Your task to perform on an android device: open chrome and create a bookmark for the current page Image 0: 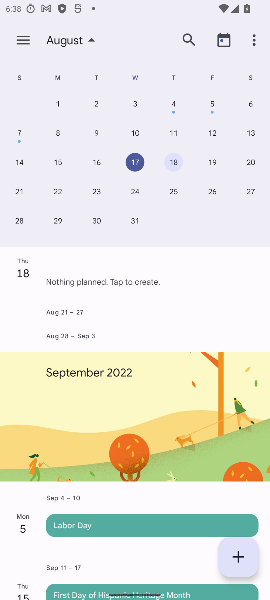
Step 0: press home button
Your task to perform on an android device: open chrome and create a bookmark for the current page Image 1: 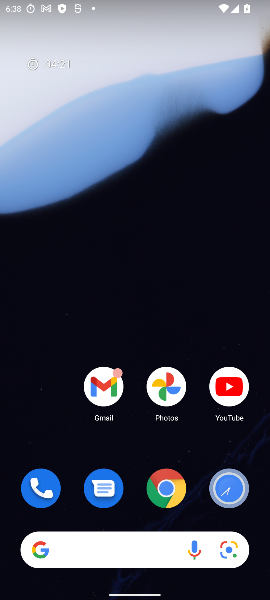
Step 1: drag from (166, 492) to (140, 10)
Your task to perform on an android device: open chrome and create a bookmark for the current page Image 2: 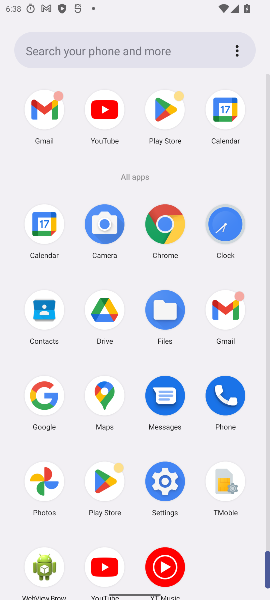
Step 2: click (172, 226)
Your task to perform on an android device: open chrome and create a bookmark for the current page Image 3: 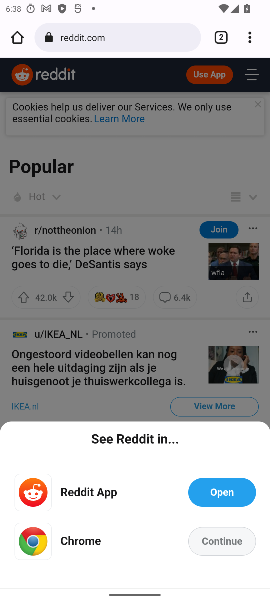
Step 3: task complete